Your task to perform on an android device: turn on data saver in the chrome app Image 0: 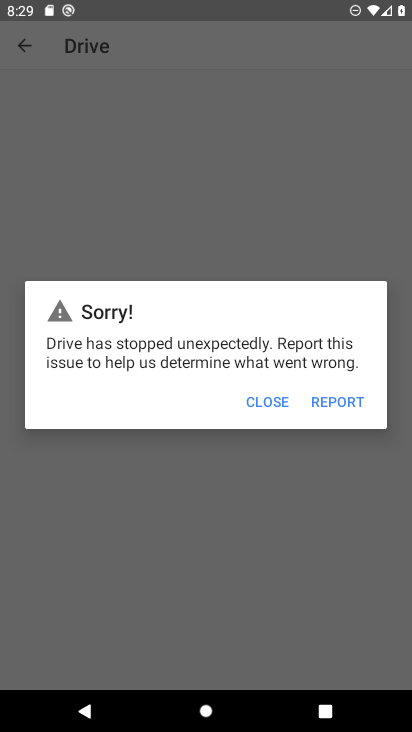
Step 0: press home button
Your task to perform on an android device: turn on data saver in the chrome app Image 1: 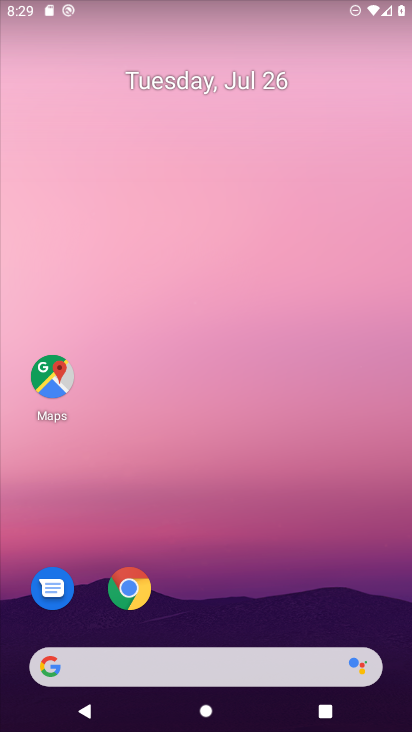
Step 1: click (133, 597)
Your task to perform on an android device: turn on data saver in the chrome app Image 2: 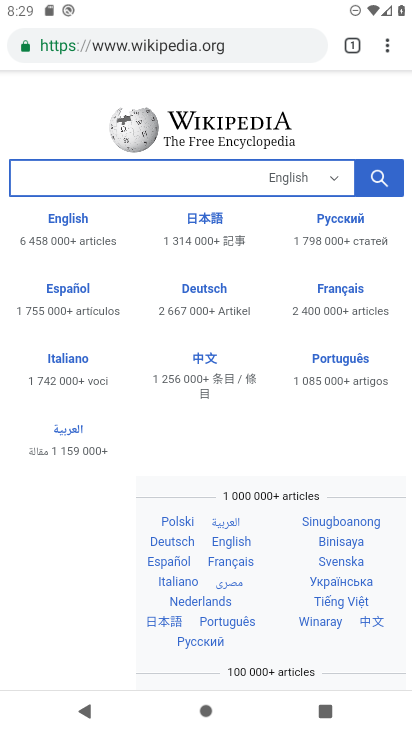
Step 2: drag from (387, 46) to (231, 544)
Your task to perform on an android device: turn on data saver in the chrome app Image 3: 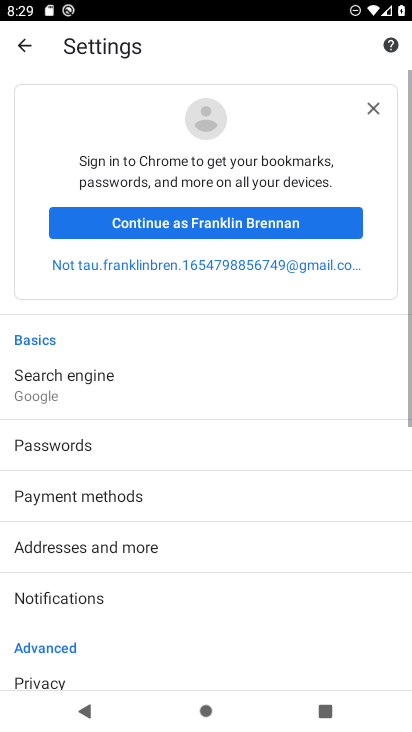
Step 3: drag from (199, 579) to (176, 263)
Your task to perform on an android device: turn on data saver in the chrome app Image 4: 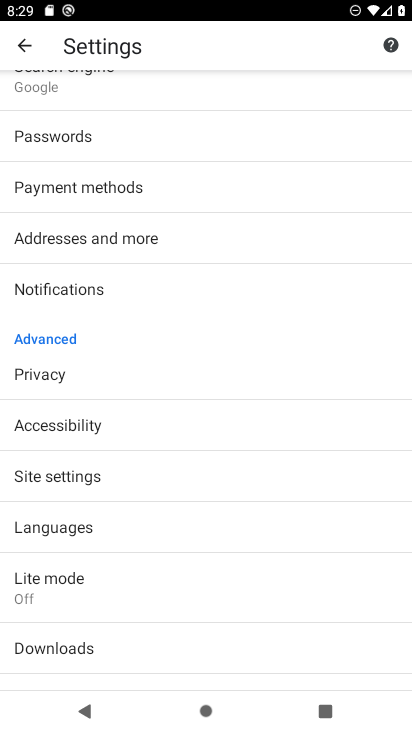
Step 4: click (81, 573)
Your task to perform on an android device: turn on data saver in the chrome app Image 5: 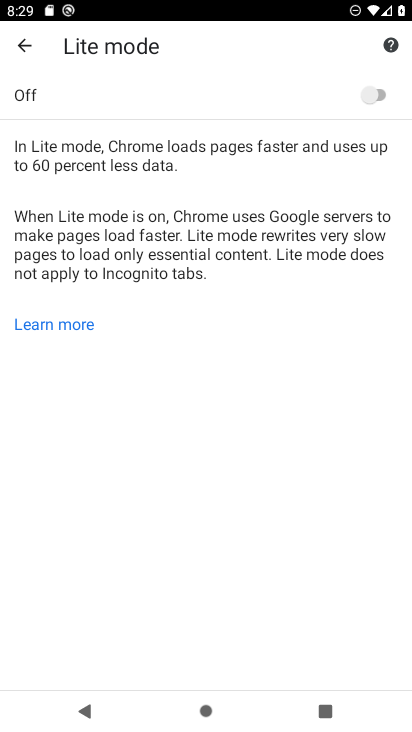
Step 5: click (368, 99)
Your task to perform on an android device: turn on data saver in the chrome app Image 6: 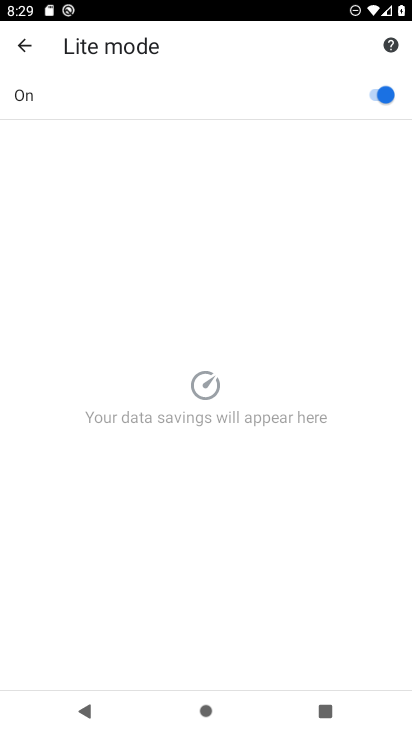
Step 6: task complete